Your task to perform on an android device: visit the assistant section in the google photos Image 0: 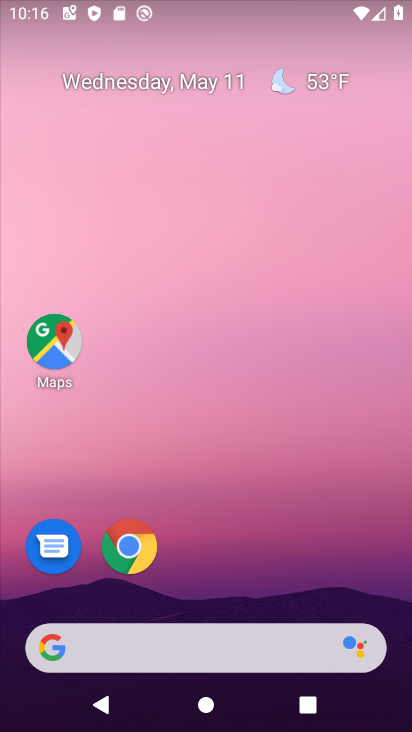
Step 0: drag from (399, 609) to (308, 81)
Your task to perform on an android device: visit the assistant section in the google photos Image 1: 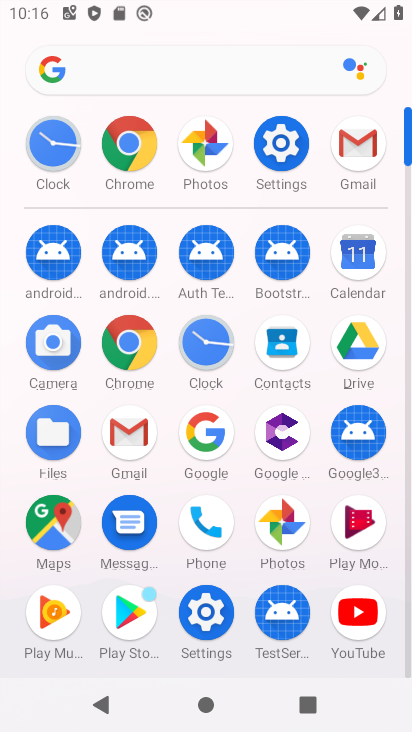
Step 1: click (284, 518)
Your task to perform on an android device: visit the assistant section in the google photos Image 2: 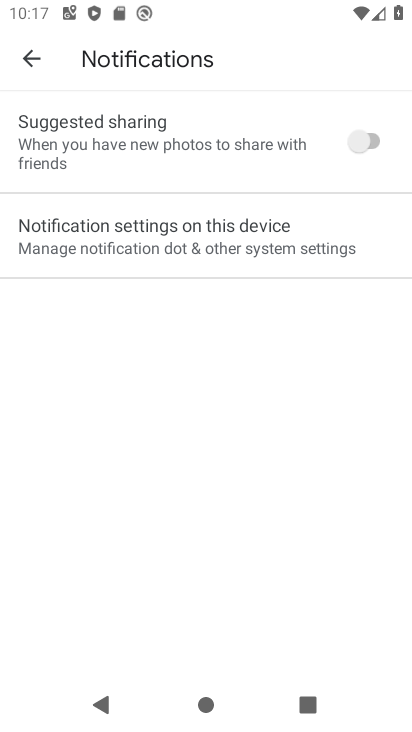
Step 2: press back button
Your task to perform on an android device: visit the assistant section in the google photos Image 3: 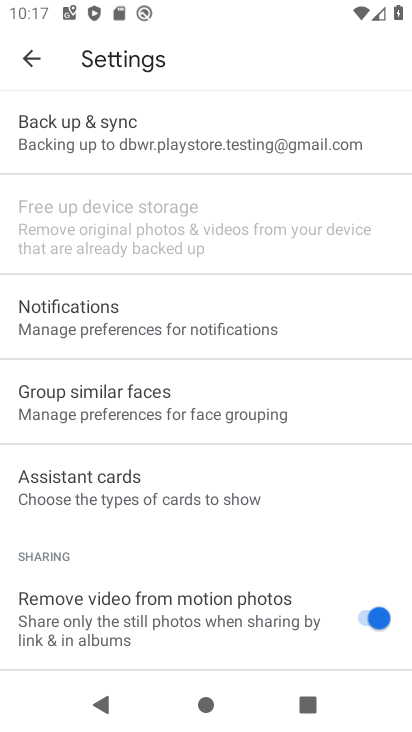
Step 3: press back button
Your task to perform on an android device: visit the assistant section in the google photos Image 4: 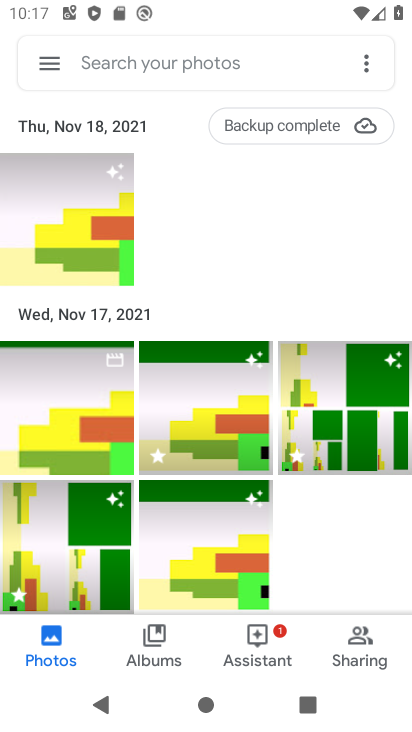
Step 4: click (268, 639)
Your task to perform on an android device: visit the assistant section in the google photos Image 5: 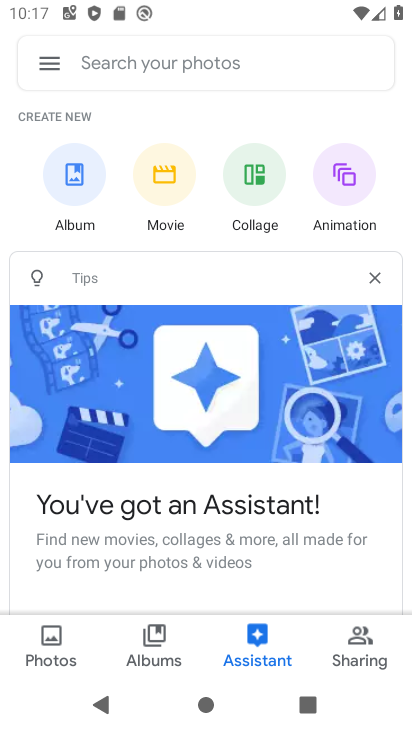
Step 5: task complete